Your task to perform on an android device: check battery use Image 0: 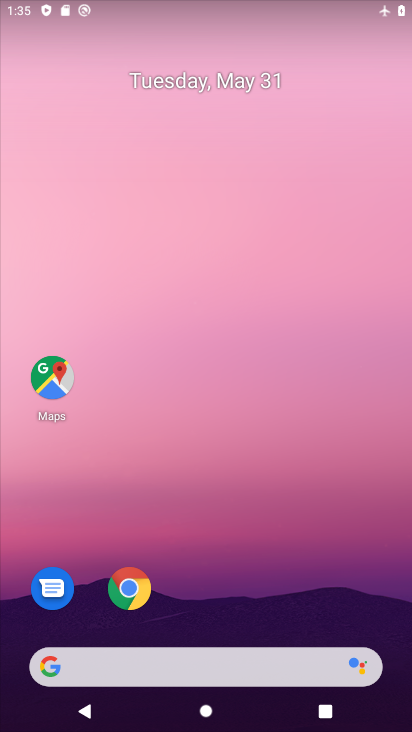
Step 0: drag from (224, 611) to (193, 119)
Your task to perform on an android device: check battery use Image 1: 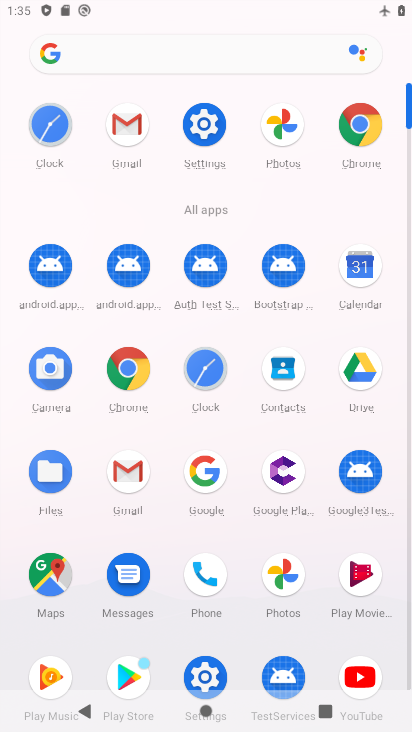
Step 1: click (206, 132)
Your task to perform on an android device: check battery use Image 2: 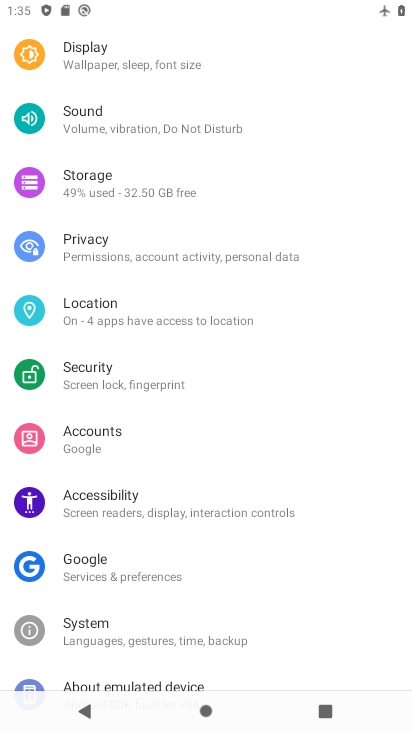
Step 2: drag from (184, 83) to (173, 562)
Your task to perform on an android device: check battery use Image 3: 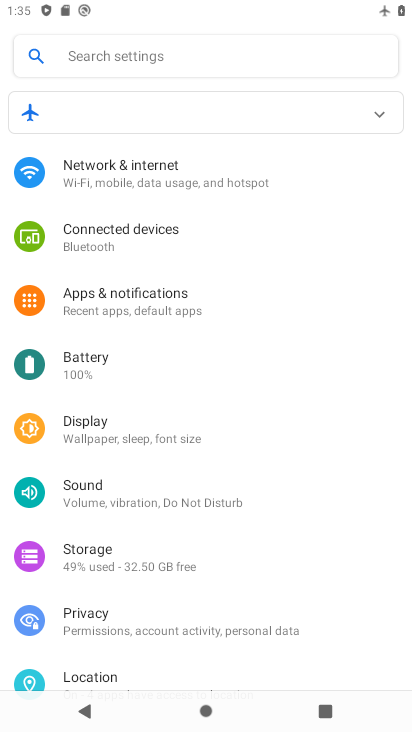
Step 3: click (130, 370)
Your task to perform on an android device: check battery use Image 4: 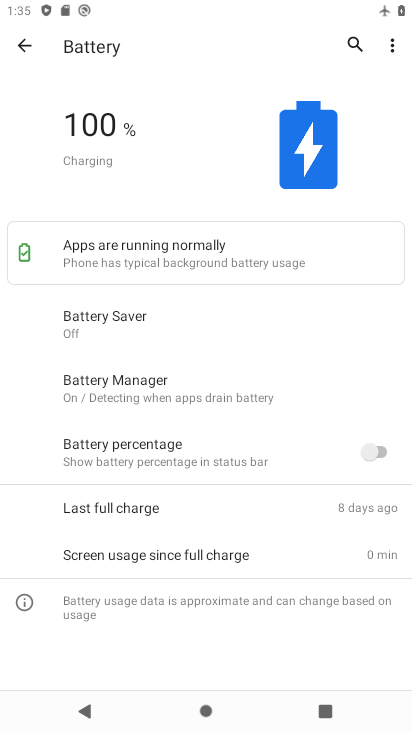
Step 4: click (398, 46)
Your task to perform on an android device: check battery use Image 5: 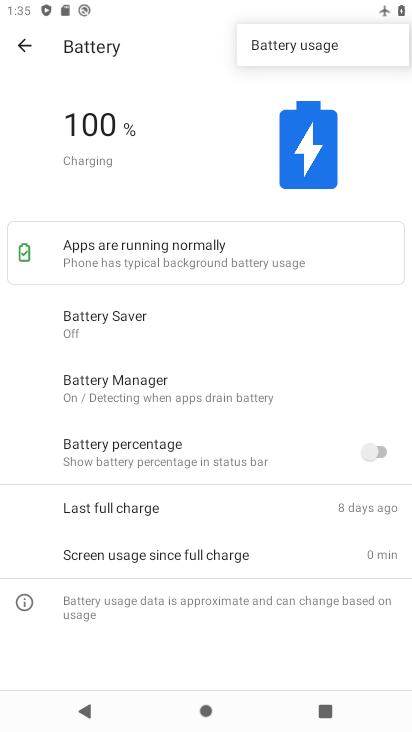
Step 5: click (331, 47)
Your task to perform on an android device: check battery use Image 6: 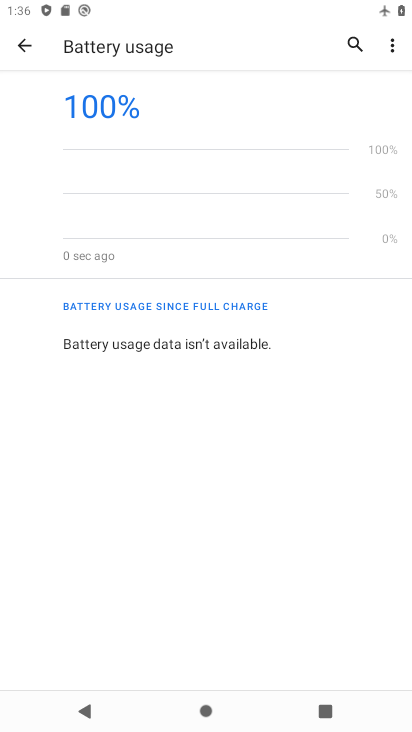
Step 6: task complete